Your task to perform on an android device: Show me productivity apps on the Play Store Image 0: 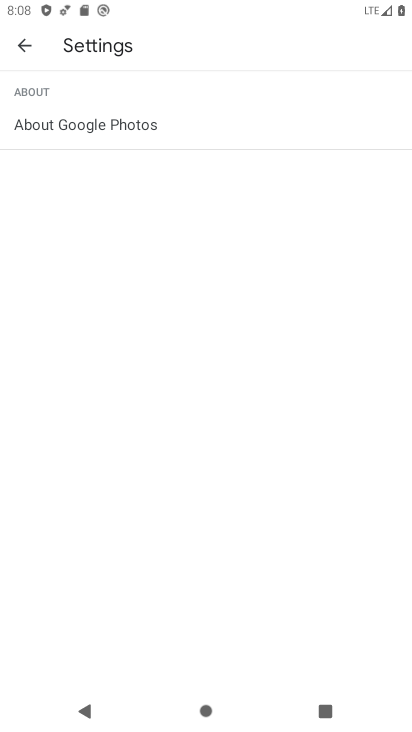
Step 0: press back button
Your task to perform on an android device: Show me productivity apps on the Play Store Image 1: 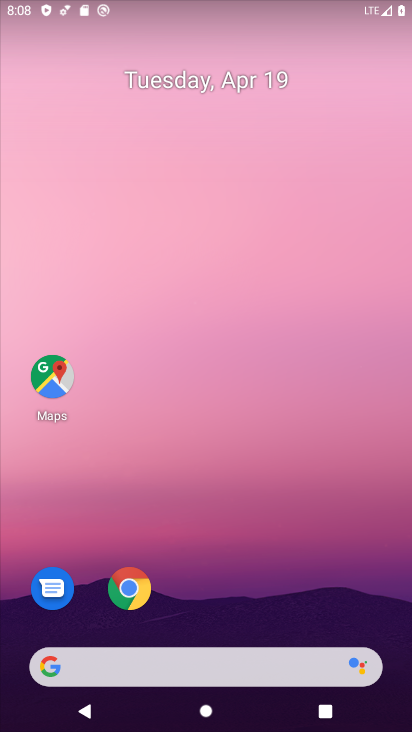
Step 1: drag from (140, 379) to (135, 41)
Your task to perform on an android device: Show me productivity apps on the Play Store Image 2: 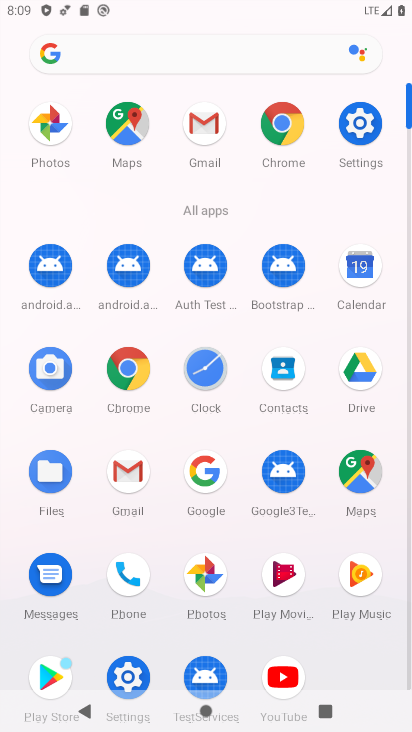
Step 2: click (51, 669)
Your task to perform on an android device: Show me productivity apps on the Play Store Image 3: 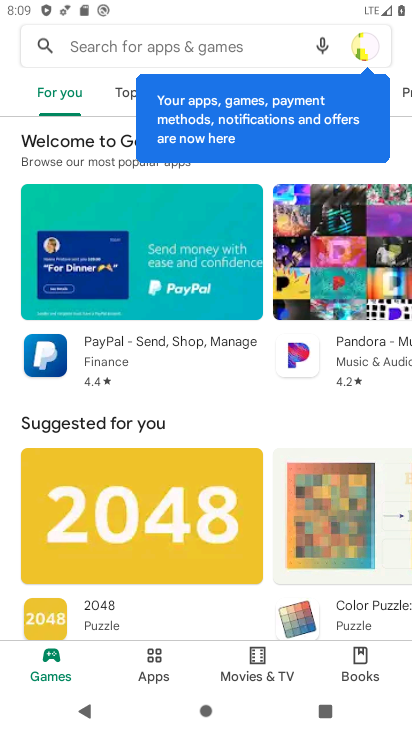
Step 3: click (160, 679)
Your task to perform on an android device: Show me productivity apps on the Play Store Image 4: 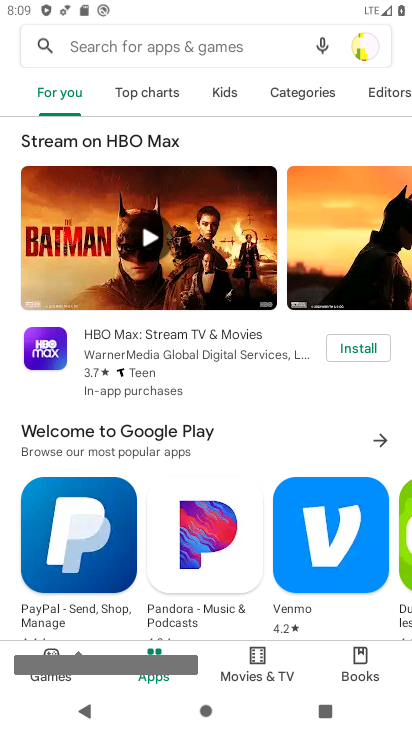
Step 4: click (138, 79)
Your task to perform on an android device: Show me productivity apps on the Play Store Image 5: 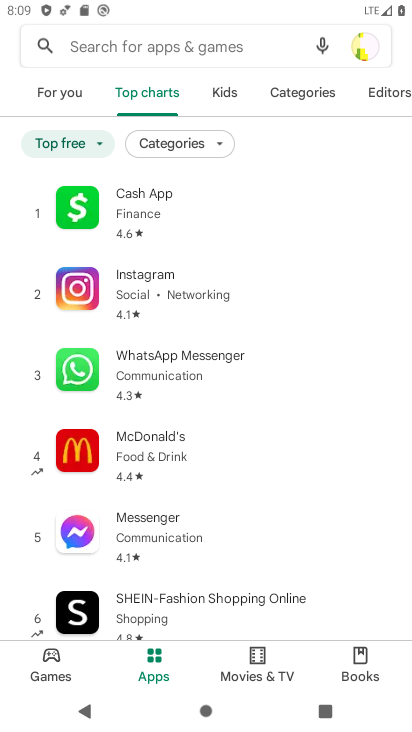
Step 5: click (205, 147)
Your task to perform on an android device: Show me productivity apps on the Play Store Image 6: 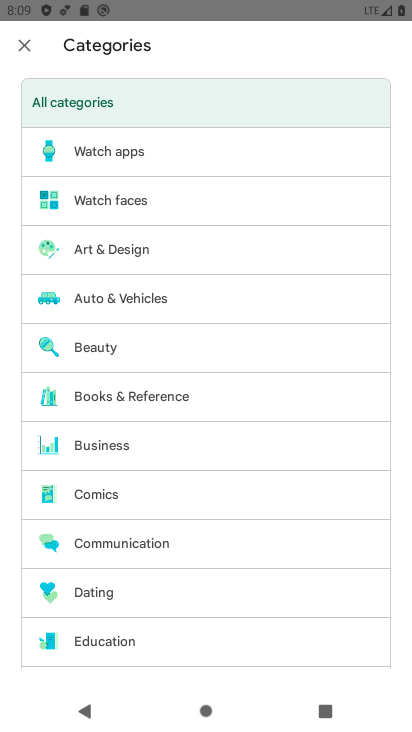
Step 6: drag from (205, 495) to (240, 197)
Your task to perform on an android device: Show me productivity apps on the Play Store Image 7: 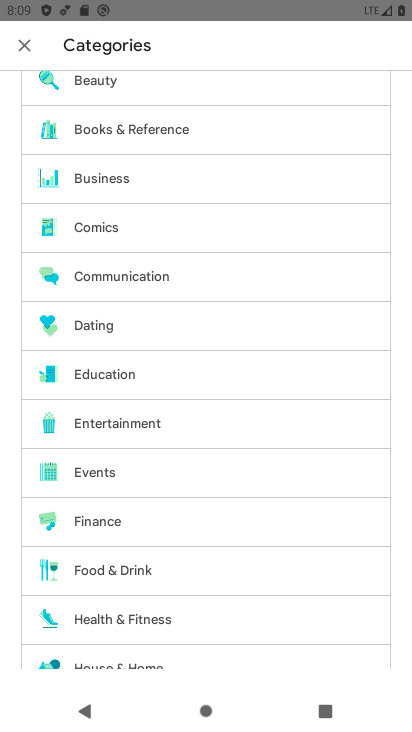
Step 7: drag from (225, 601) to (248, 196)
Your task to perform on an android device: Show me productivity apps on the Play Store Image 8: 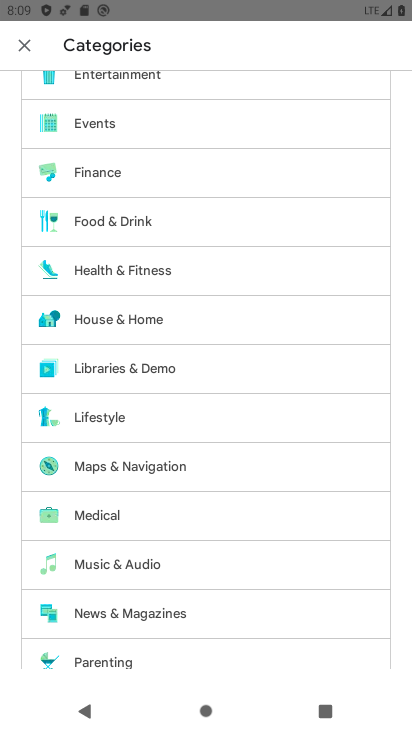
Step 8: drag from (198, 630) to (234, 396)
Your task to perform on an android device: Show me productivity apps on the Play Store Image 9: 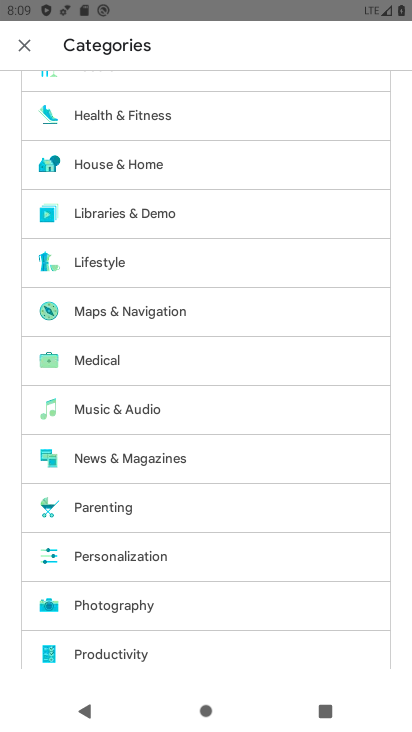
Step 9: click (171, 646)
Your task to perform on an android device: Show me productivity apps on the Play Store Image 10: 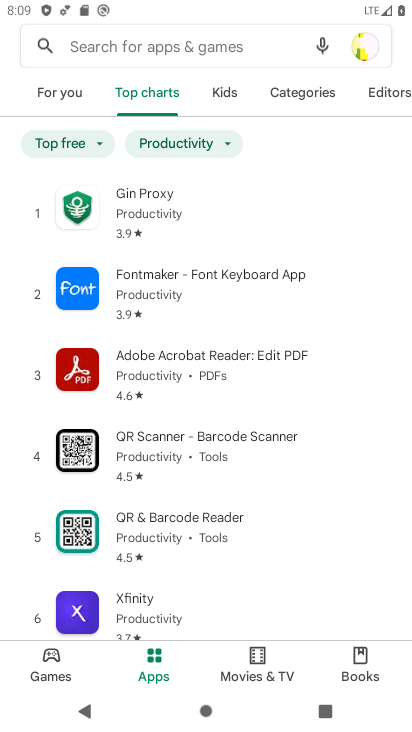
Step 10: task complete